Your task to perform on an android device: set the stopwatch Image 0: 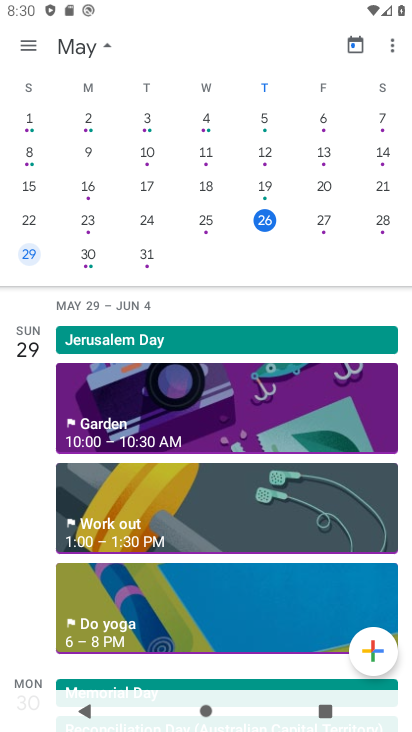
Step 0: press home button
Your task to perform on an android device: set the stopwatch Image 1: 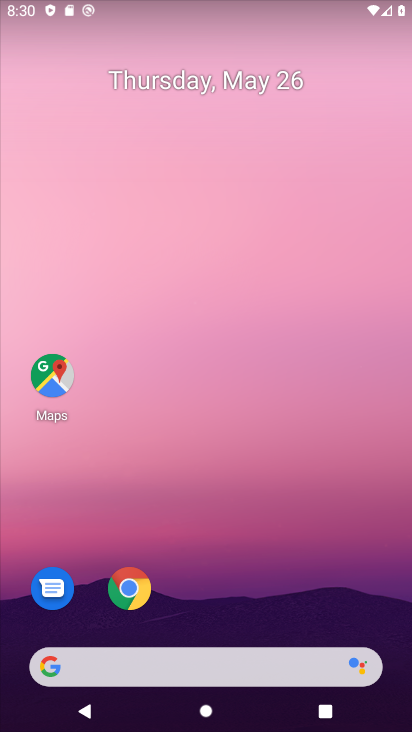
Step 1: drag from (295, 612) to (297, 15)
Your task to perform on an android device: set the stopwatch Image 2: 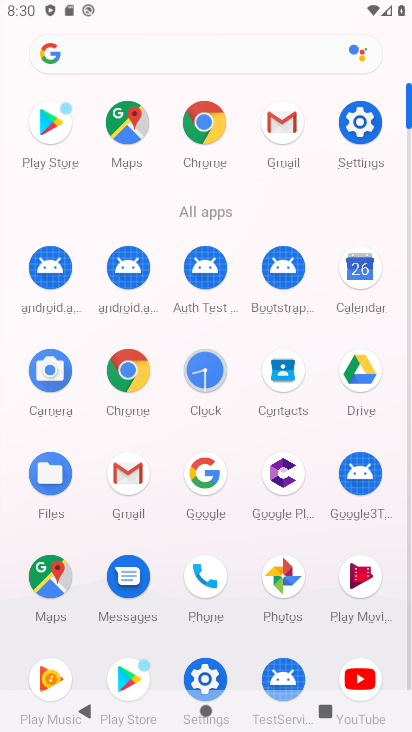
Step 2: click (194, 372)
Your task to perform on an android device: set the stopwatch Image 3: 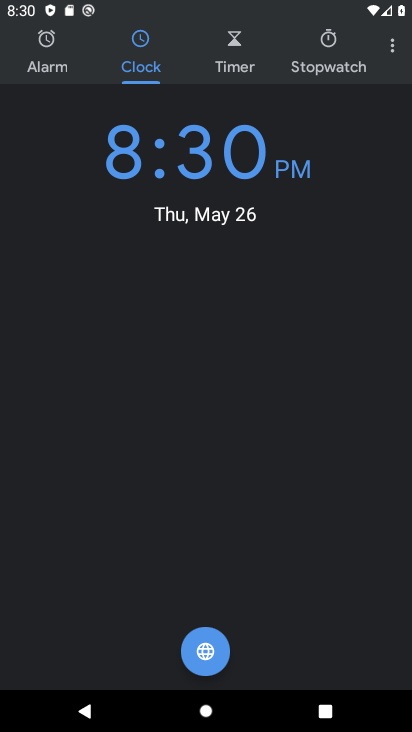
Step 3: click (327, 55)
Your task to perform on an android device: set the stopwatch Image 4: 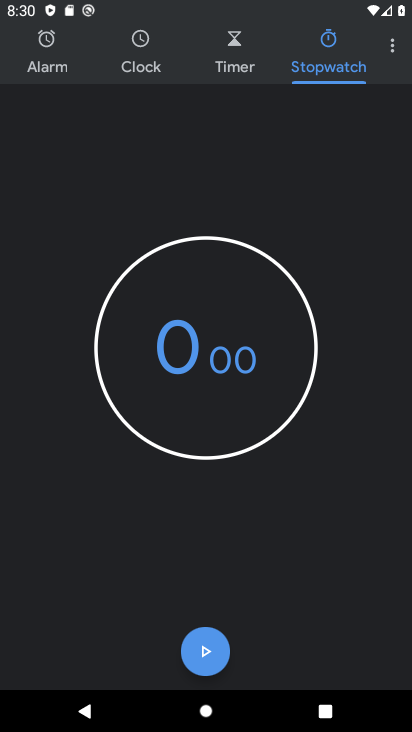
Step 4: click (192, 644)
Your task to perform on an android device: set the stopwatch Image 5: 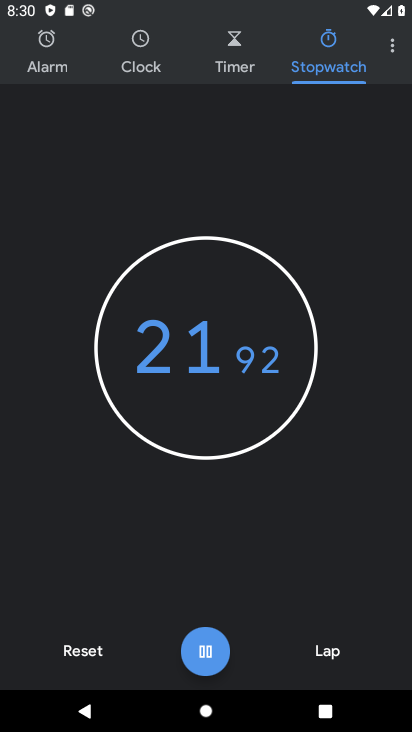
Step 5: task complete